Your task to perform on an android device: change the upload size in google photos Image 0: 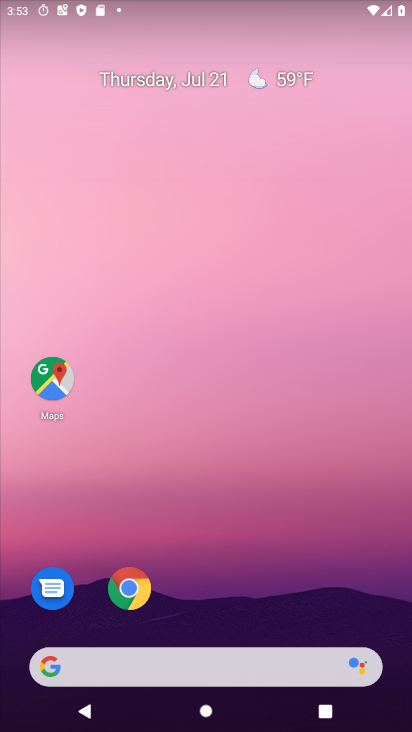
Step 0: drag from (219, 557) to (222, 86)
Your task to perform on an android device: change the upload size in google photos Image 1: 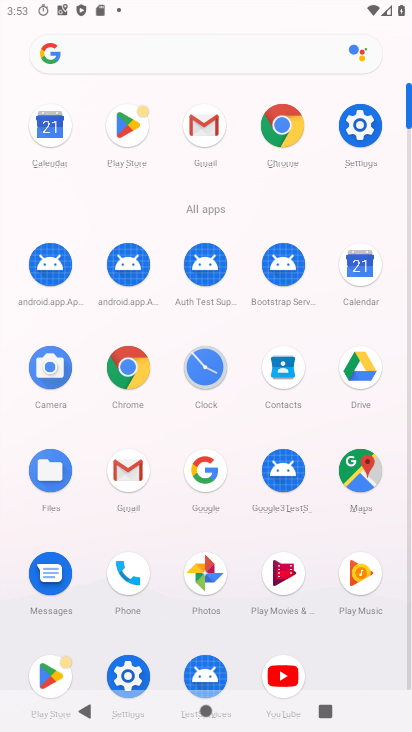
Step 1: click (198, 578)
Your task to perform on an android device: change the upload size in google photos Image 2: 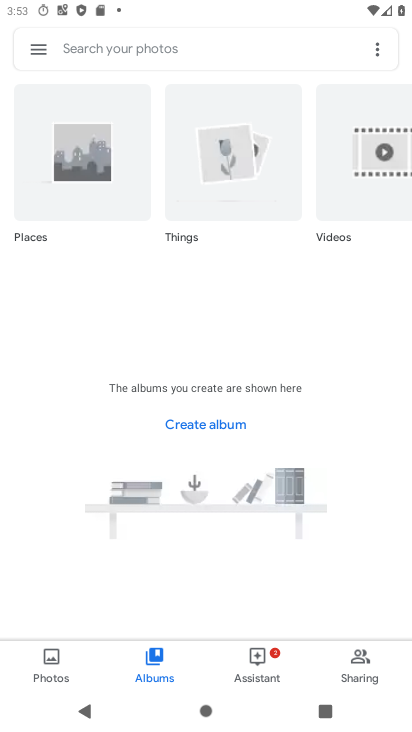
Step 2: click (25, 45)
Your task to perform on an android device: change the upload size in google photos Image 3: 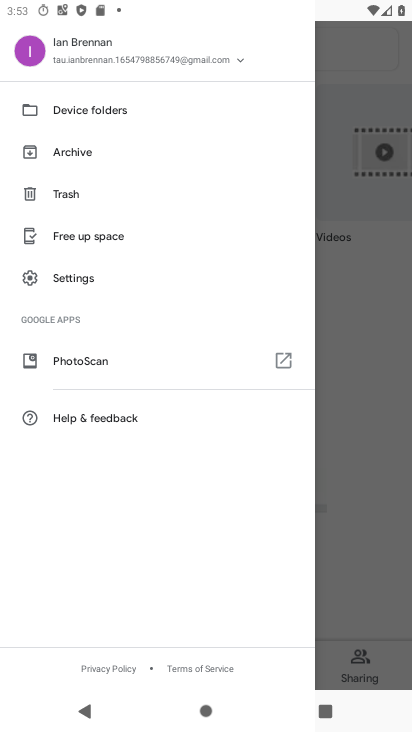
Step 3: click (71, 284)
Your task to perform on an android device: change the upload size in google photos Image 4: 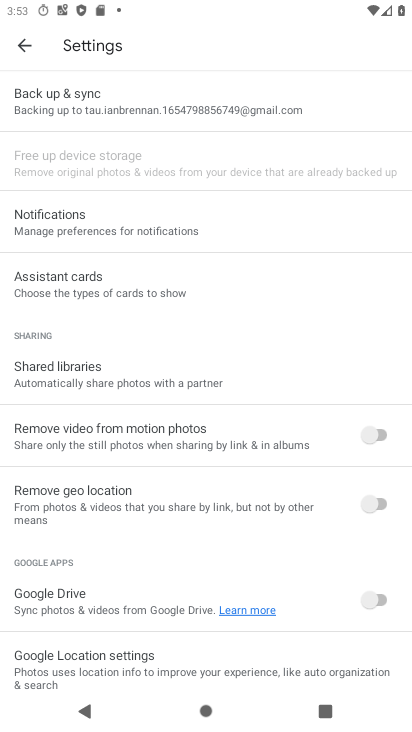
Step 4: click (93, 106)
Your task to perform on an android device: change the upload size in google photos Image 5: 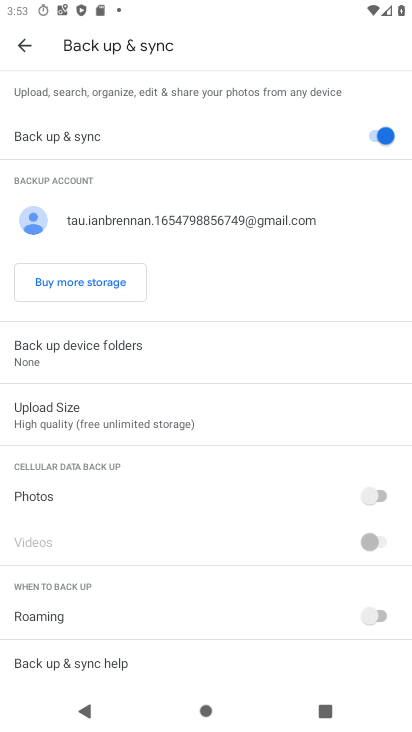
Step 5: click (113, 427)
Your task to perform on an android device: change the upload size in google photos Image 6: 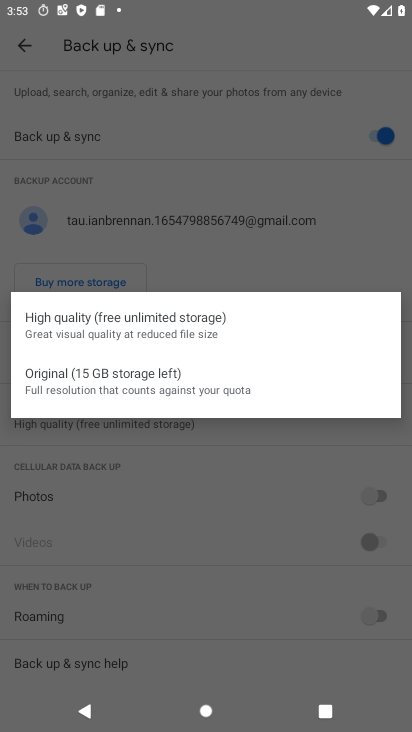
Step 6: click (102, 400)
Your task to perform on an android device: change the upload size in google photos Image 7: 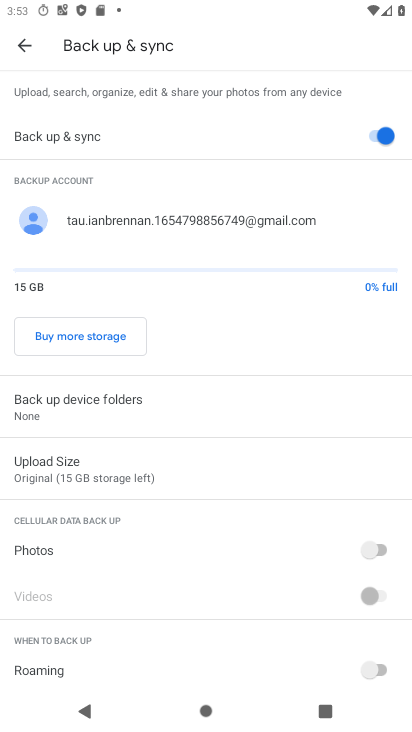
Step 7: task complete